Your task to perform on an android device: toggle show notifications on the lock screen Image 0: 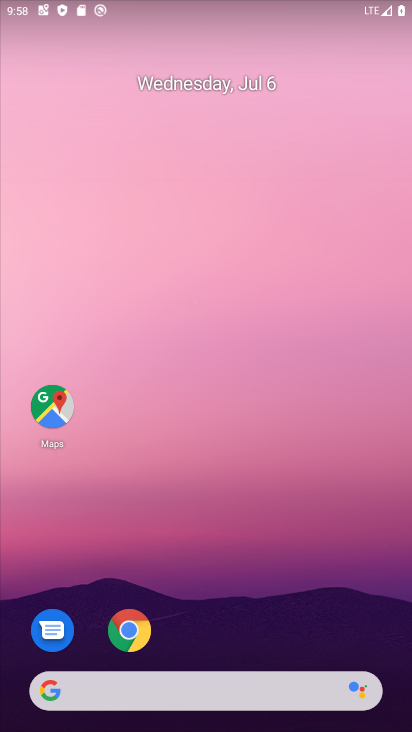
Step 0: press home button
Your task to perform on an android device: toggle show notifications on the lock screen Image 1: 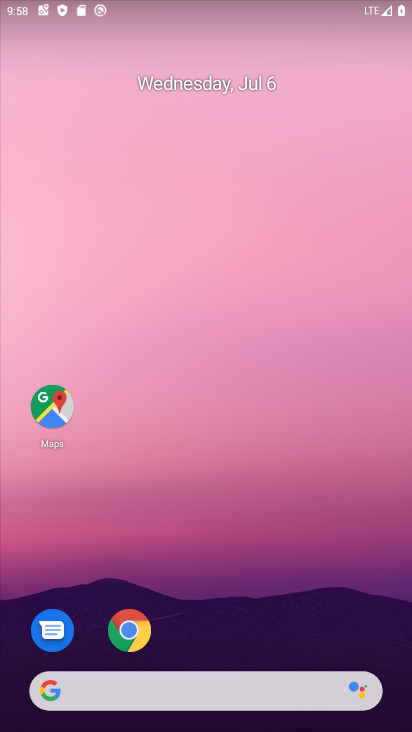
Step 1: drag from (374, 624) to (337, 122)
Your task to perform on an android device: toggle show notifications on the lock screen Image 2: 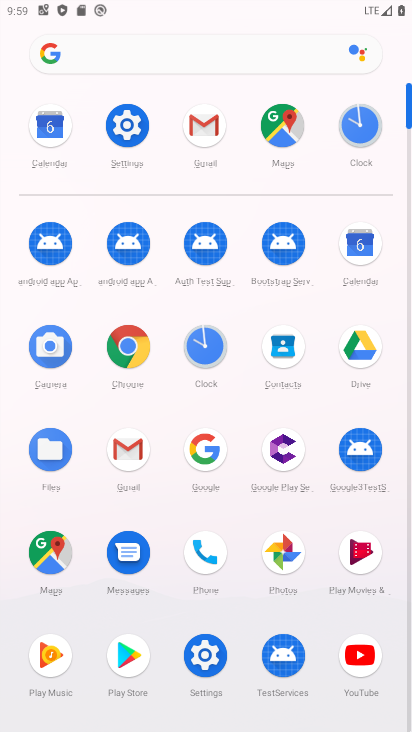
Step 2: click (205, 660)
Your task to perform on an android device: toggle show notifications on the lock screen Image 3: 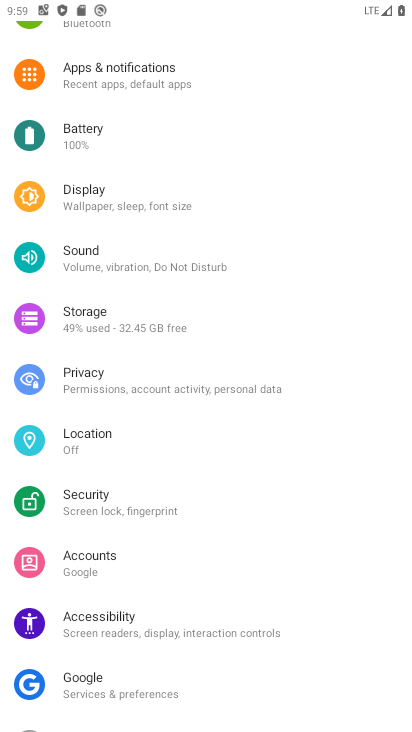
Step 3: click (122, 72)
Your task to perform on an android device: toggle show notifications on the lock screen Image 4: 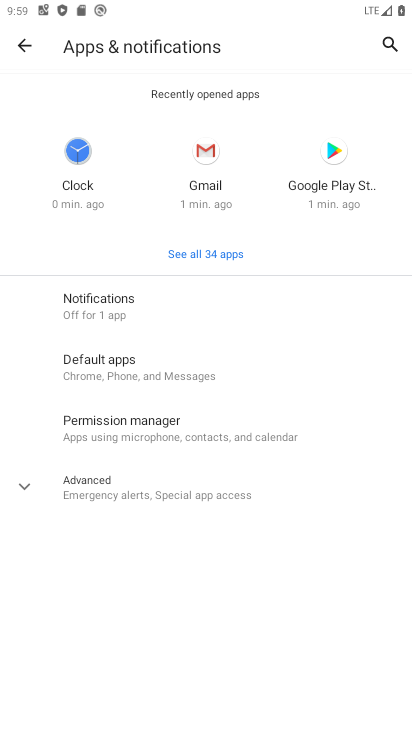
Step 4: click (83, 302)
Your task to perform on an android device: toggle show notifications on the lock screen Image 5: 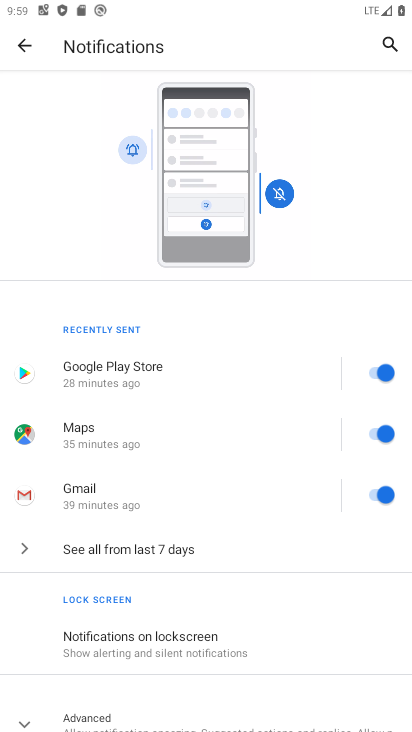
Step 5: click (184, 646)
Your task to perform on an android device: toggle show notifications on the lock screen Image 6: 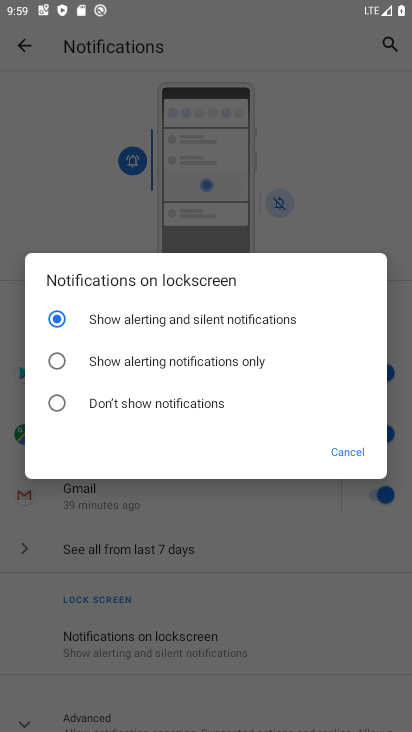
Step 6: click (60, 363)
Your task to perform on an android device: toggle show notifications on the lock screen Image 7: 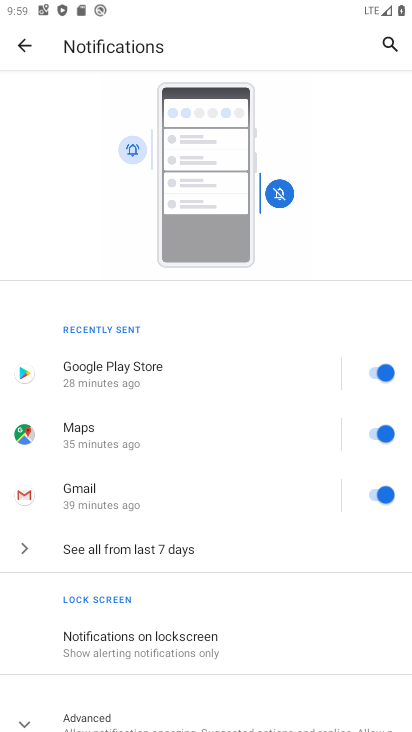
Step 7: task complete